Your task to perform on an android device: set the timer Image 0: 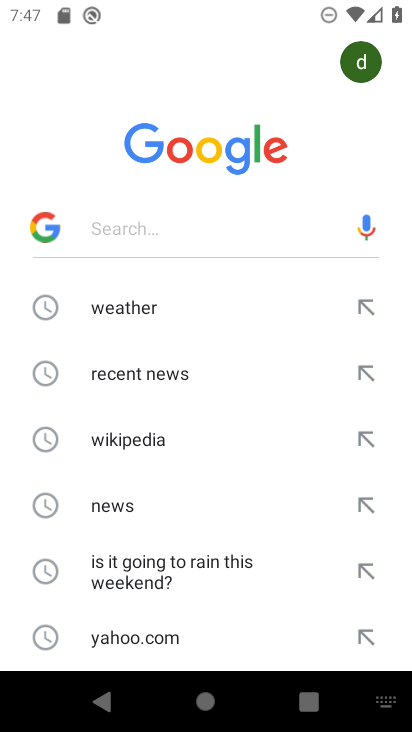
Step 0: press home button
Your task to perform on an android device: set the timer Image 1: 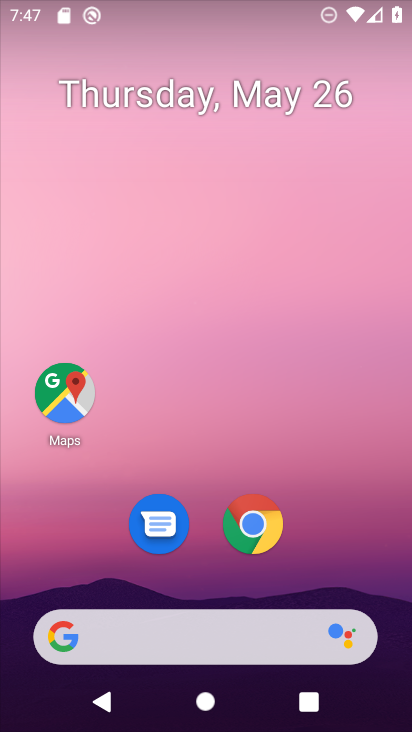
Step 1: drag from (246, 451) to (283, 38)
Your task to perform on an android device: set the timer Image 2: 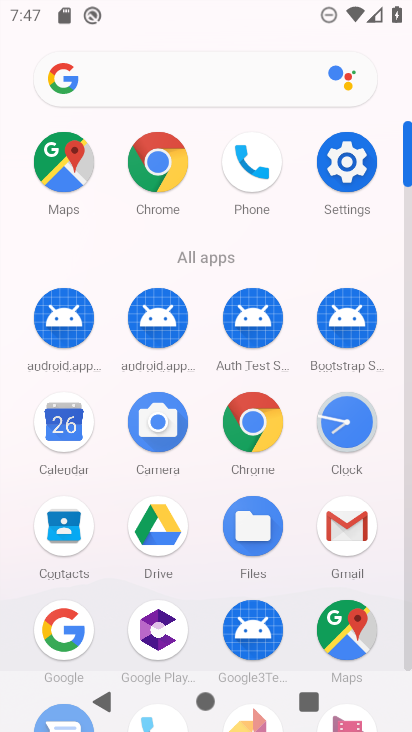
Step 2: click (344, 411)
Your task to perform on an android device: set the timer Image 3: 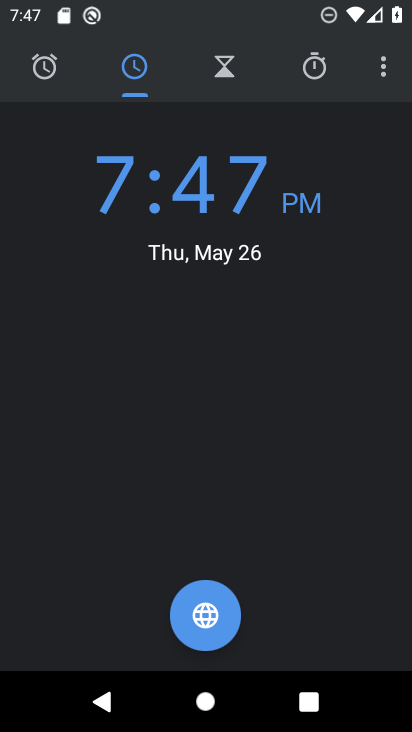
Step 3: click (315, 62)
Your task to perform on an android device: set the timer Image 4: 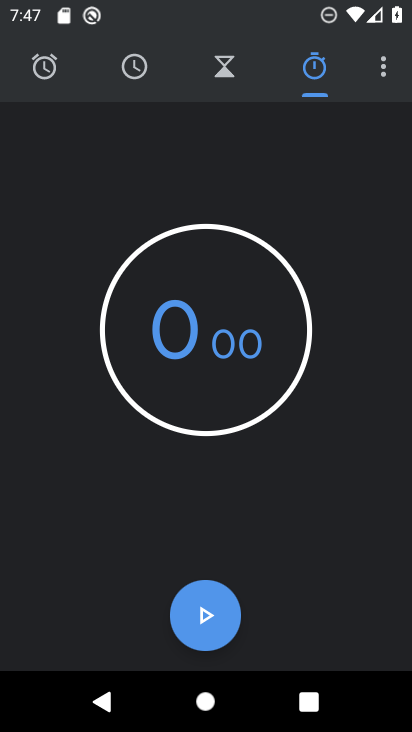
Step 4: task complete